Your task to perform on an android device: open app "WhatsApp Messenger" (install if not already installed), go to login, and select forgot password Image 0: 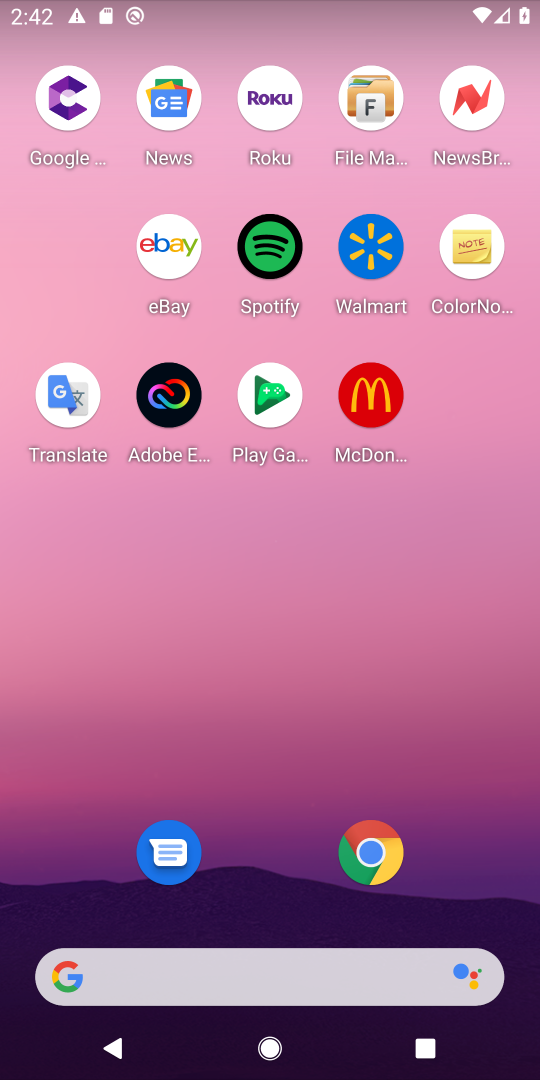
Step 0: drag from (277, 935) to (186, 213)
Your task to perform on an android device: open app "WhatsApp Messenger" (install if not already installed), go to login, and select forgot password Image 1: 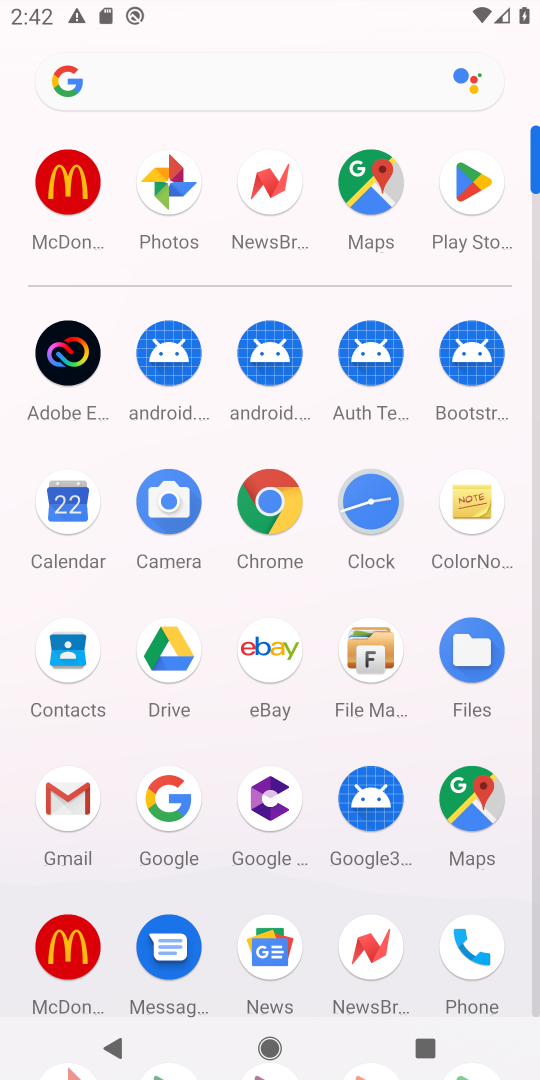
Step 1: click (471, 181)
Your task to perform on an android device: open app "WhatsApp Messenger" (install if not already installed), go to login, and select forgot password Image 2: 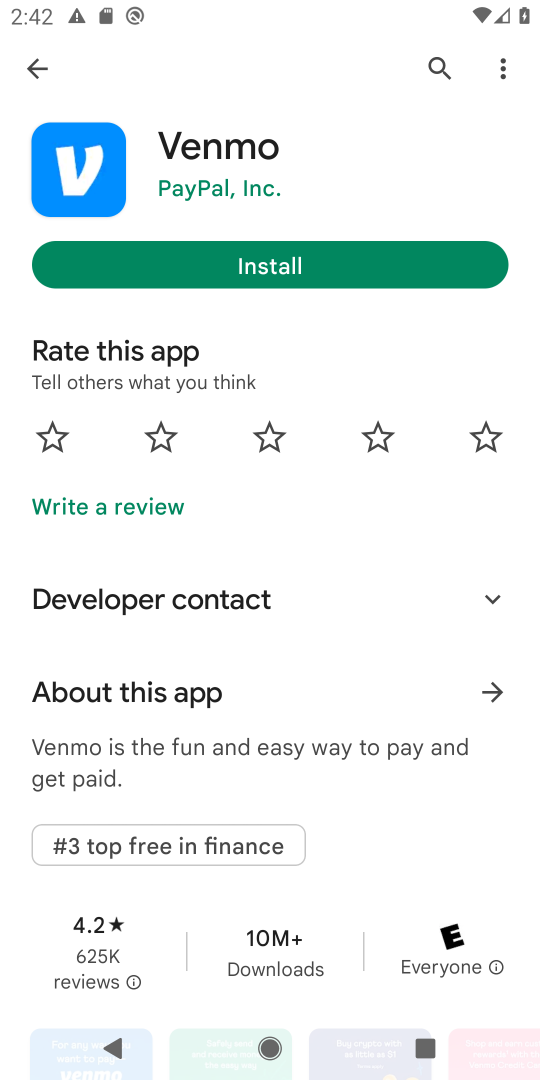
Step 2: click (438, 64)
Your task to perform on an android device: open app "WhatsApp Messenger" (install if not already installed), go to login, and select forgot password Image 3: 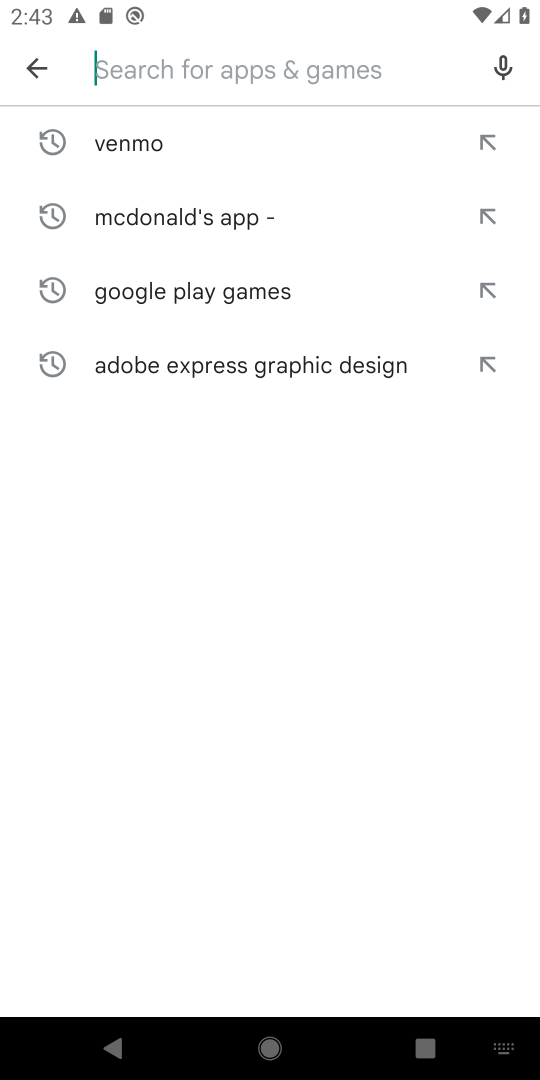
Step 3: type "WhatsApp Messenger"
Your task to perform on an android device: open app "WhatsApp Messenger" (install if not already installed), go to login, and select forgot password Image 4: 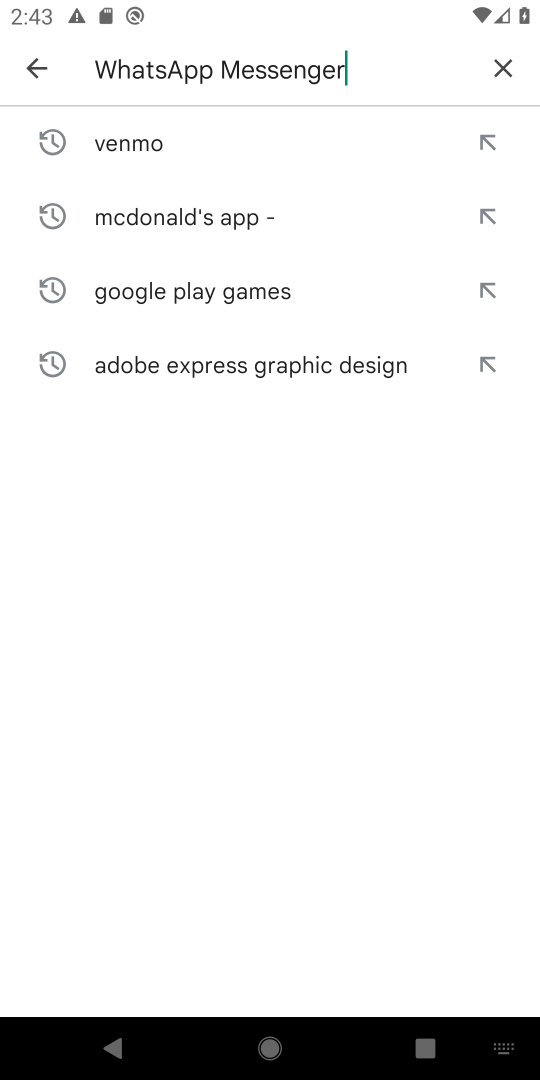
Step 4: type ""
Your task to perform on an android device: open app "WhatsApp Messenger" (install if not already installed), go to login, and select forgot password Image 5: 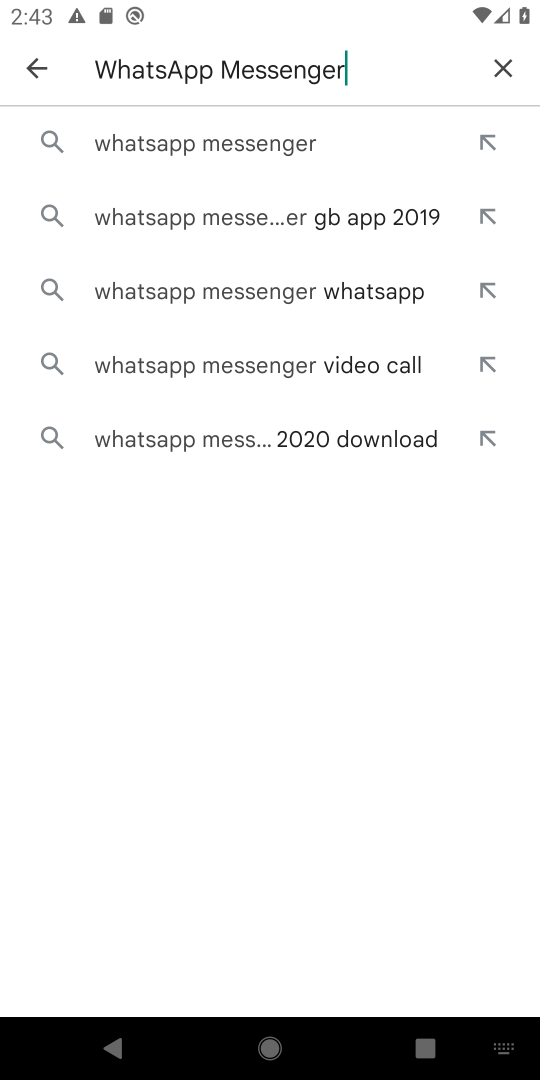
Step 5: click (148, 145)
Your task to perform on an android device: open app "WhatsApp Messenger" (install if not already installed), go to login, and select forgot password Image 6: 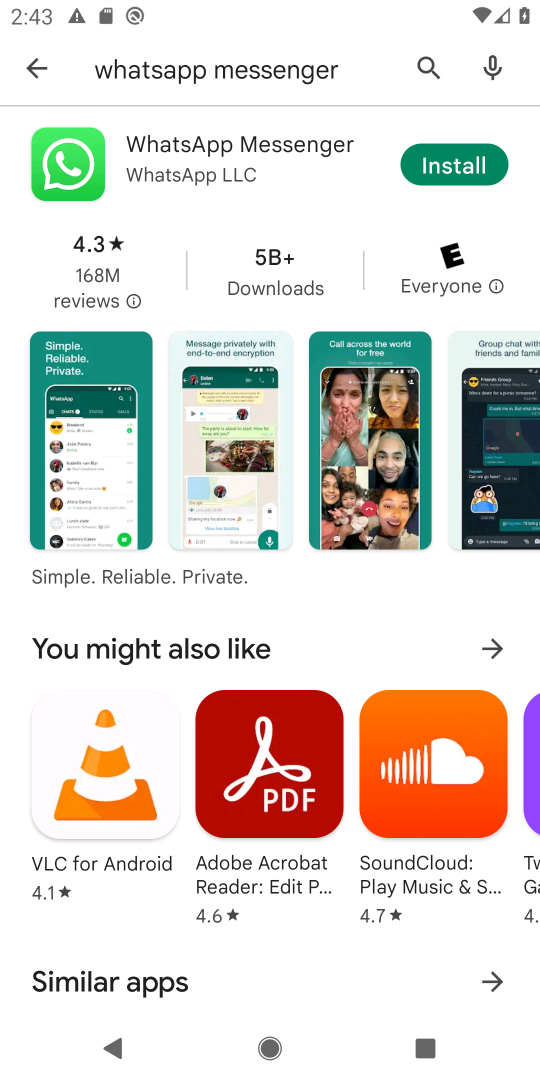
Step 6: click (456, 167)
Your task to perform on an android device: open app "WhatsApp Messenger" (install if not already installed), go to login, and select forgot password Image 7: 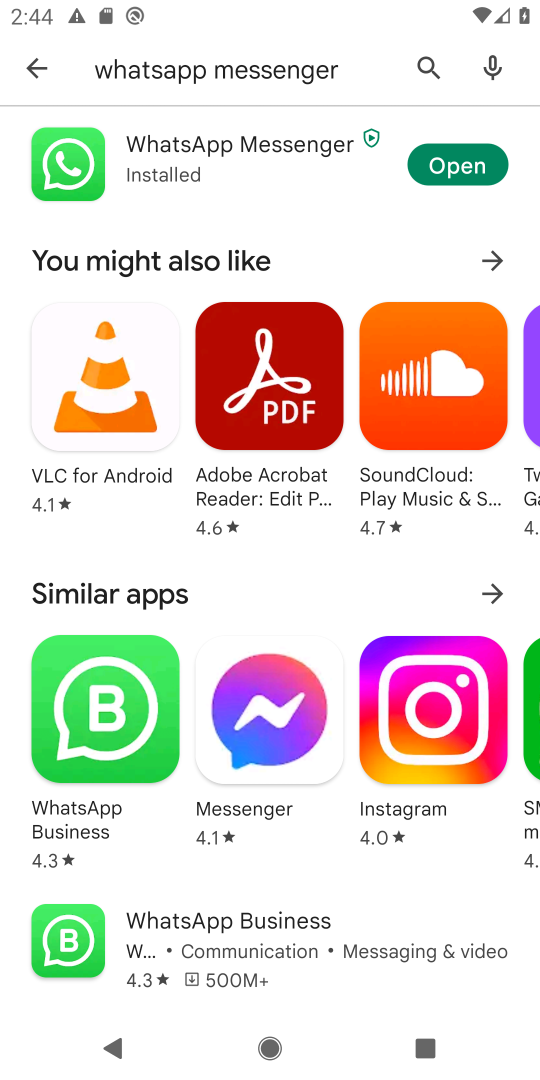
Step 7: click (463, 164)
Your task to perform on an android device: open app "WhatsApp Messenger" (install if not already installed), go to login, and select forgot password Image 8: 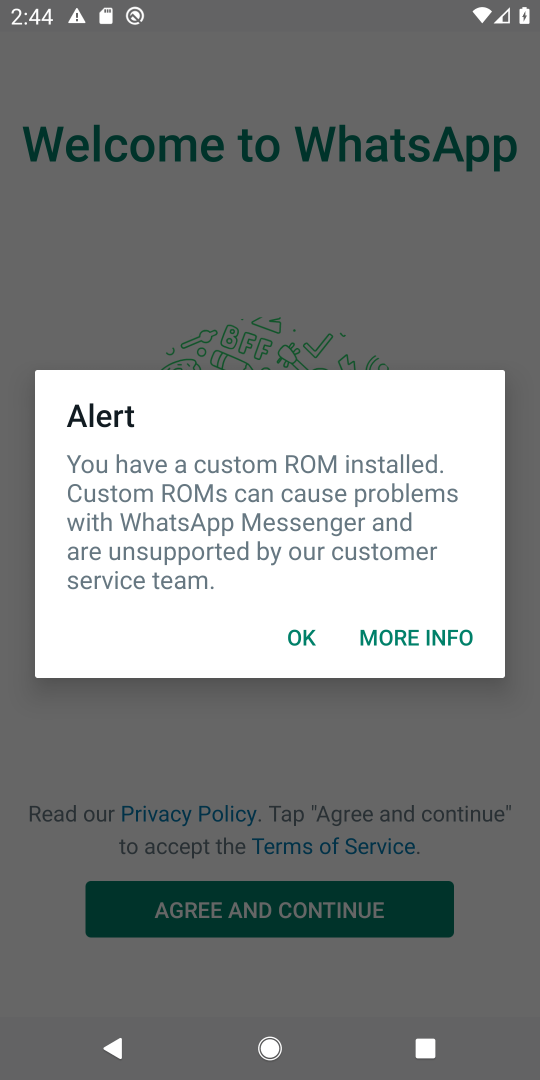
Step 8: task complete